Your task to perform on an android device: clear history in the chrome app Image 0: 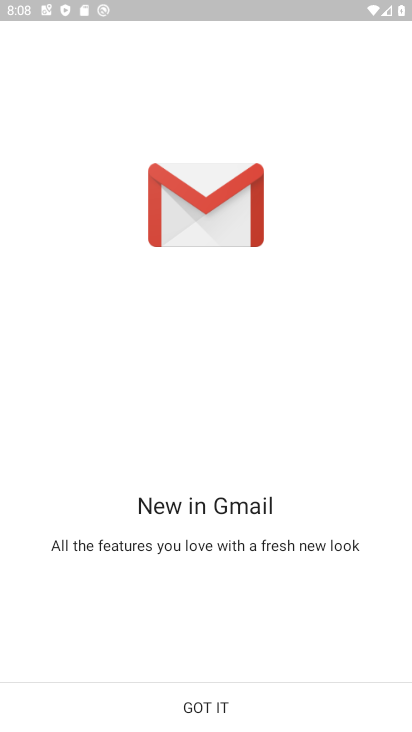
Step 0: press back button
Your task to perform on an android device: clear history in the chrome app Image 1: 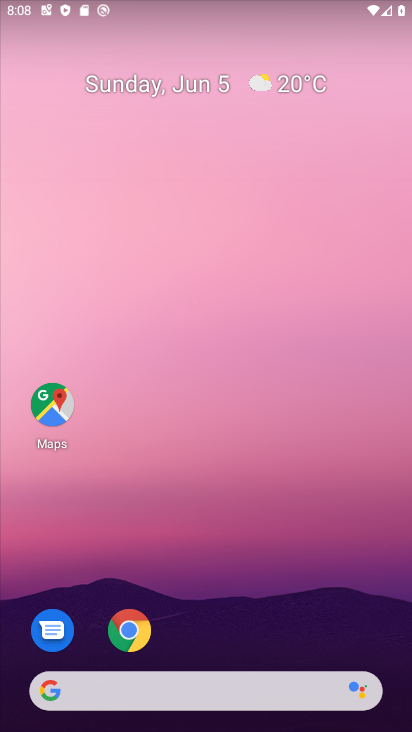
Step 1: click (128, 630)
Your task to perform on an android device: clear history in the chrome app Image 2: 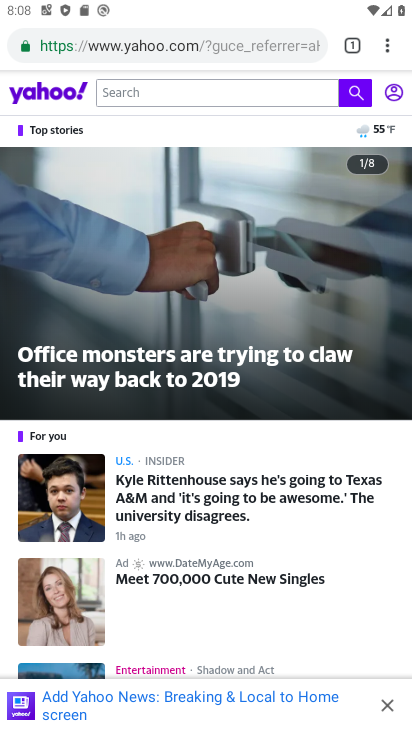
Step 2: click (388, 44)
Your task to perform on an android device: clear history in the chrome app Image 3: 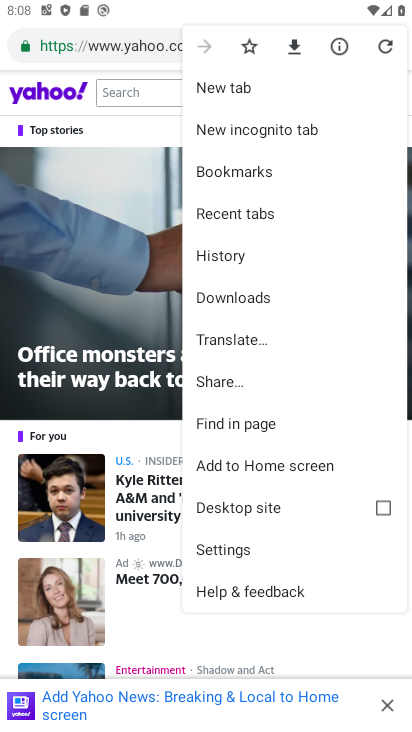
Step 3: click (236, 259)
Your task to perform on an android device: clear history in the chrome app Image 4: 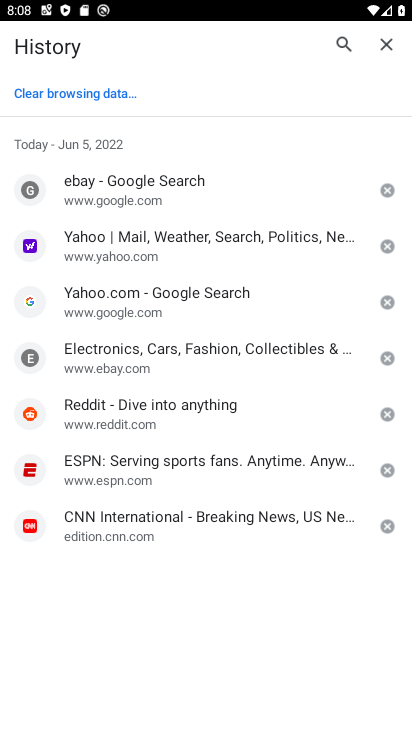
Step 4: click (61, 91)
Your task to perform on an android device: clear history in the chrome app Image 5: 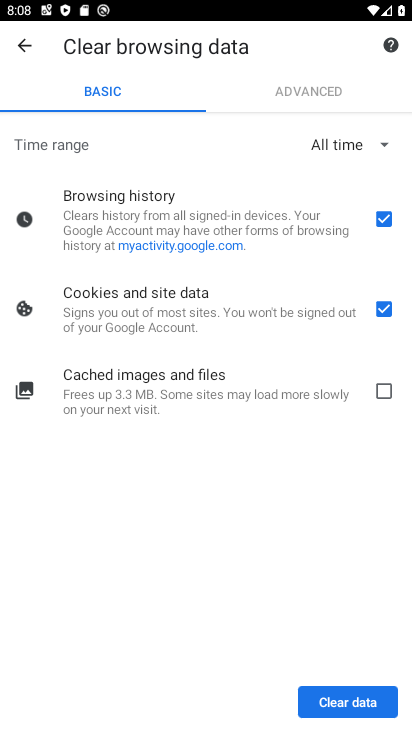
Step 5: click (384, 394)
Your task to perform on an android device: clear history in the chrome app Image 6: 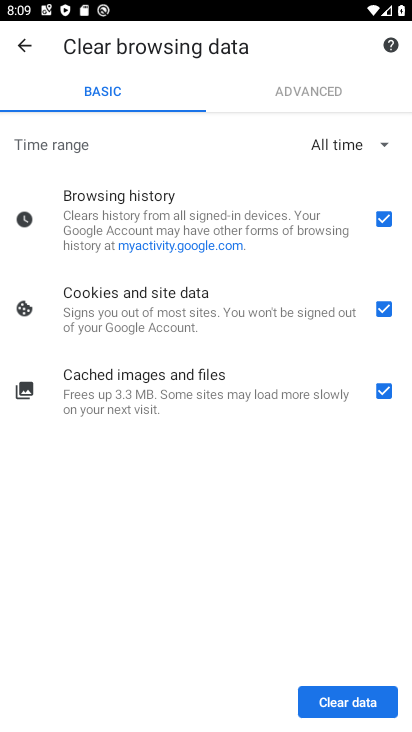
Step 6: click (343, 698)
Your task to perform on an android device: clear history in the chrome app Image 7: 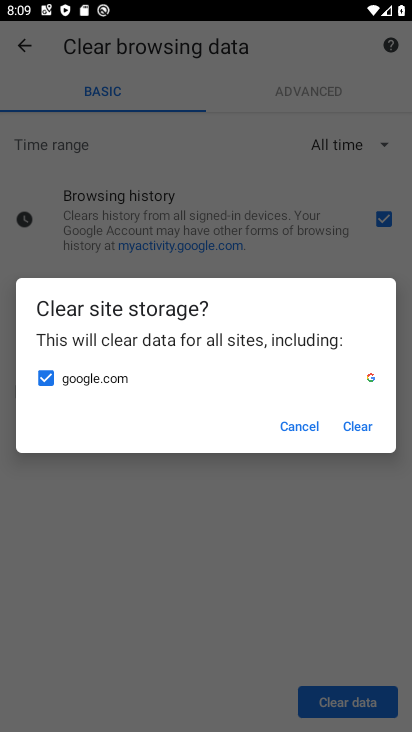
Step 7: click (363, 426)
Your task to perform on an android device: clear history in the chrome app Image 8: 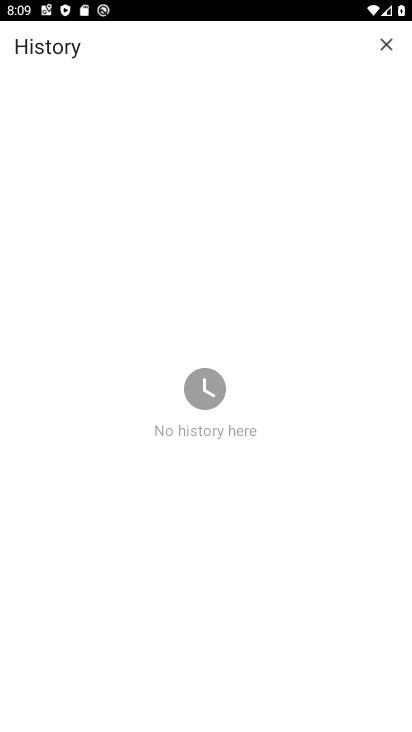
Step 8: task complete